Your task to perform on an android device: turn on priority inbox in the gmail app Image 0: 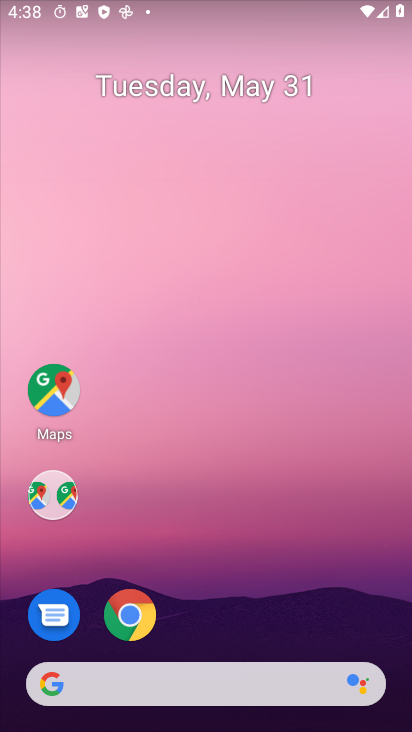
Step 0: click (204, 171)
Your task to perform on an android device: turn on priority inbox in the gmail app Image 1: 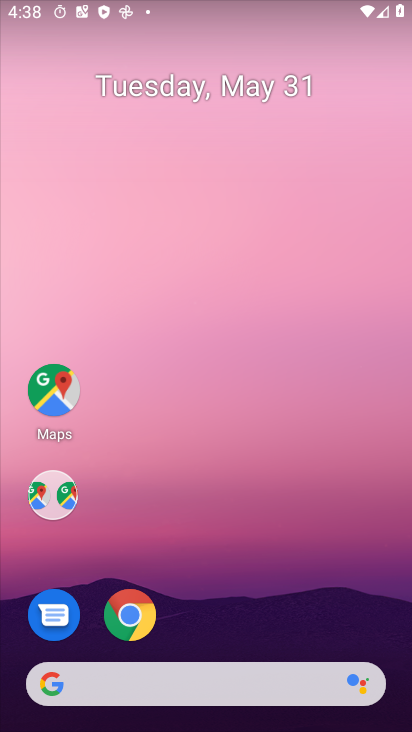
Step 1: drag from (259, 628) to (184, 74)
Your task to perform on an android device: turn on priority inbox in the gmail app Image 2: 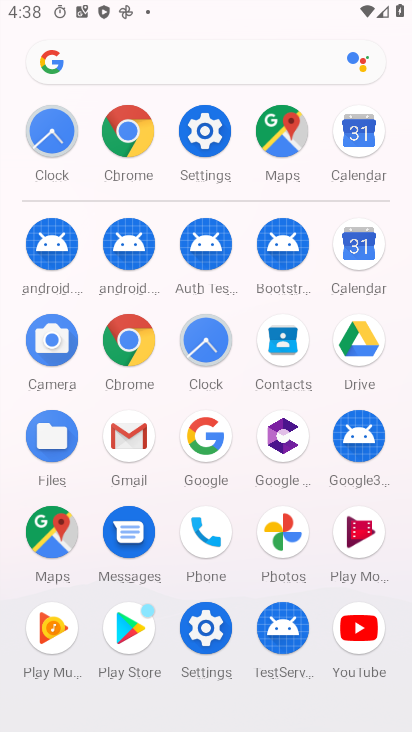
Step 2: drag from (243, 481) to (191, 9)
Your task to perform on an android device: turn on priority inbox in the gmail app Image 3: 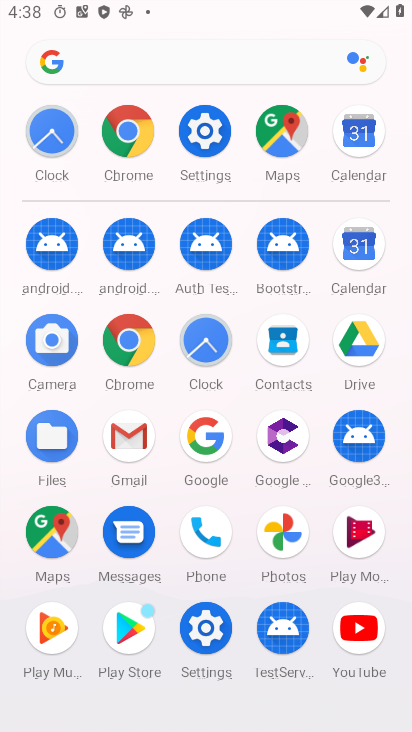
Step 3: click (129, 429)
Your task to perform on an android device: turn on priority inbox in the gmail app Image 4: 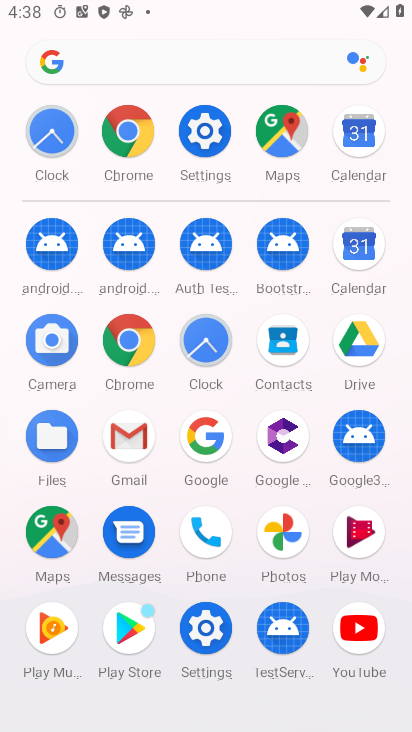
Step 4: click (129, 429)
Your task to perform on an android device: turn on priority inbox in the gmail app Image 5: 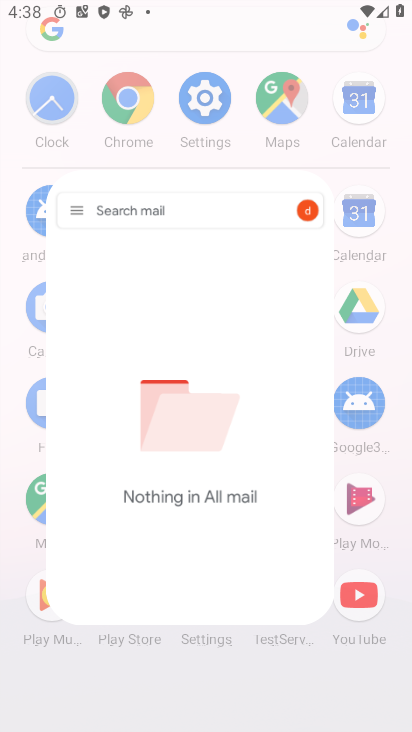
Step 5: click (129, 429)
Your task to perform on an android device: turn on priority inbox in the gmail app Image 6: 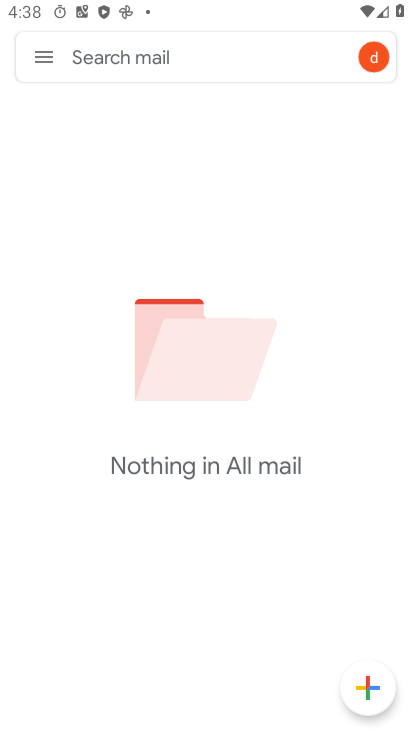
Step 6: click (130, 429)
Your task to perform on an android device: turn on priority inbox in the gmail app Image 7: 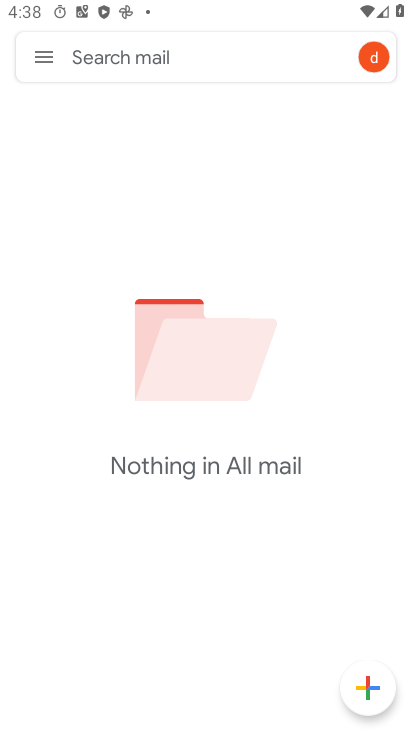
Step 7: click (131, 429)
Your task to perform on an android device: turn on priority inbox in the gmail app Image 8: 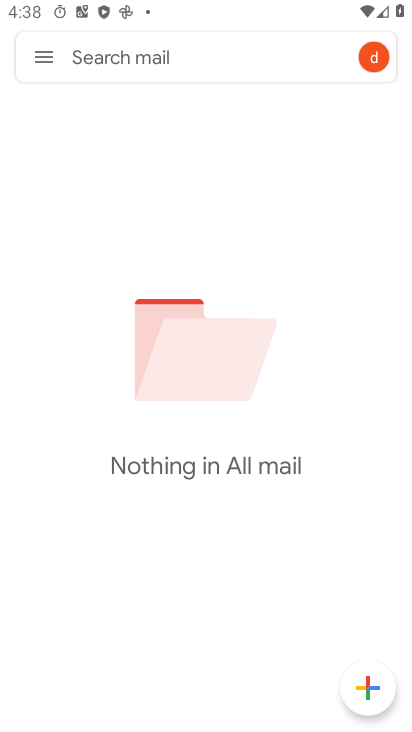
Step 8: click (129, 415)
Your task to perform on an android device: turn on priority inbox in the gmail app Image 9: 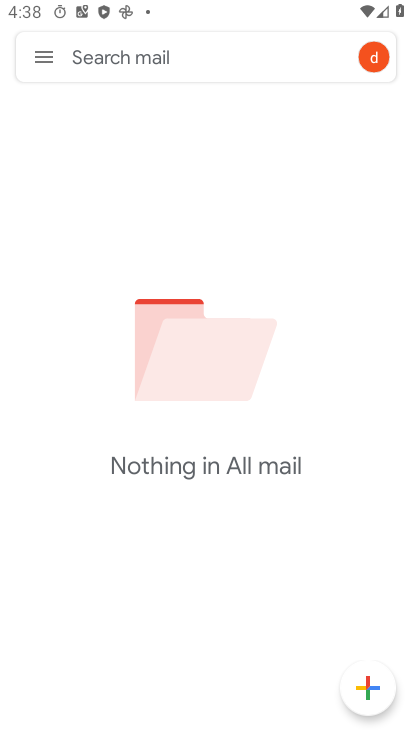
Step 9: click (38, 58)
Your task to perform on an android device: turn on priority inbox in the gmail app Image 10: 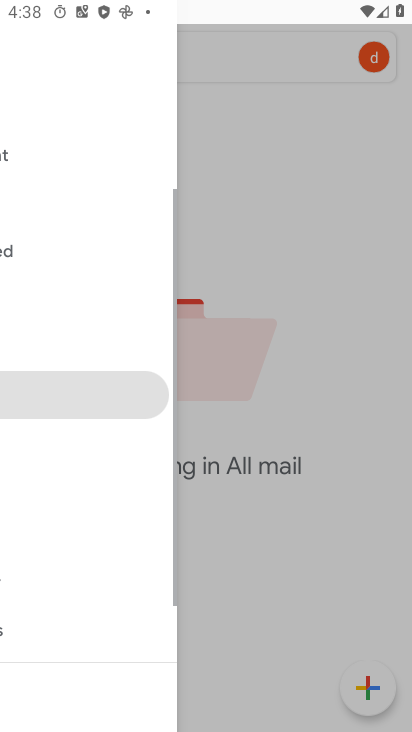
Step 10: click (43, 65)
Your task to perform on an android device: turn on priority inbox in the gmail app Image 11: 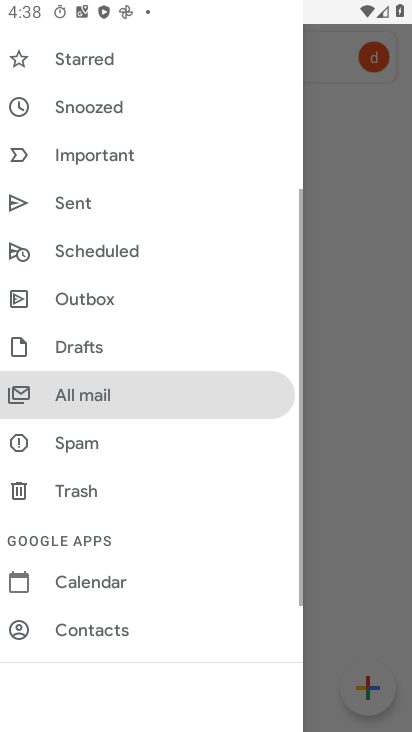
Step 11: click (43, 65)
Your task to perform on an android device: turn on priority inbox in the gmail app Image 12: 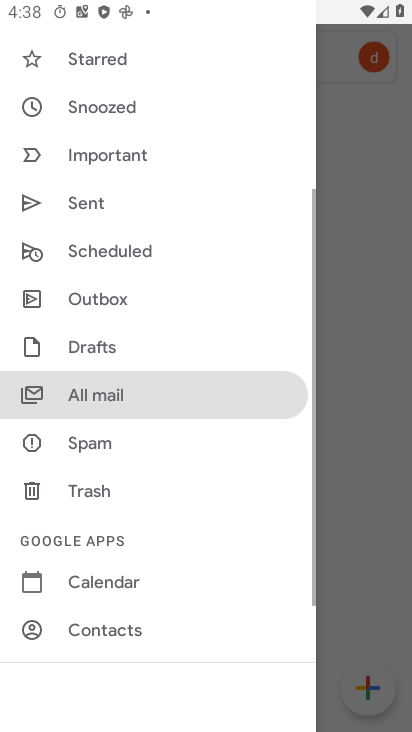
Step 12: drag from (43, 65) to (80, 636)
Your task to perform on an android device: turn on priority inbox in the gmail app Image 13: 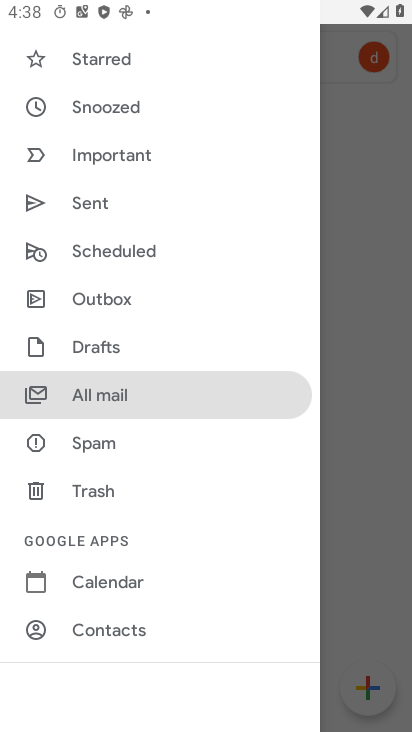
Step 13: drag from (83, 587) to (28, 194)
Your task to perform on an android device: turn on priority inbox in the gmail app Image 14: 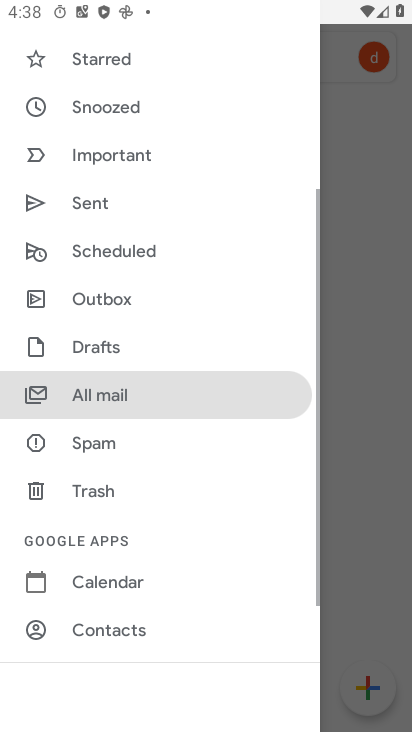
Step 14: click (150, 174)
Your task to perform on an android device: turn on priority inbox in the gmail app Image 15: 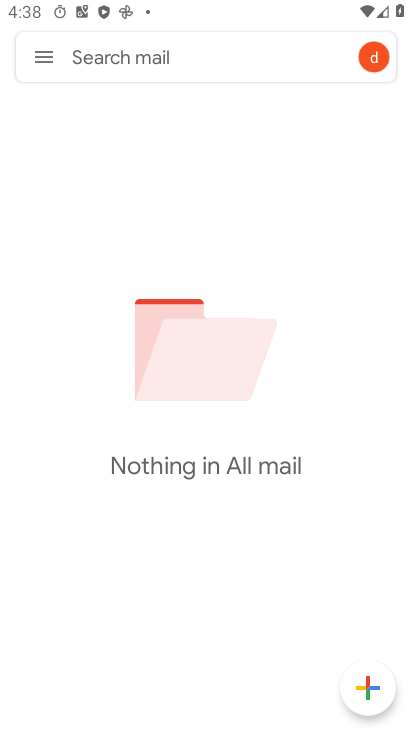
Step 15: drag from (68, 590) to (85, 153)
Your task to perform on an android device: turn on priority inbox in the gmail app Image 16: 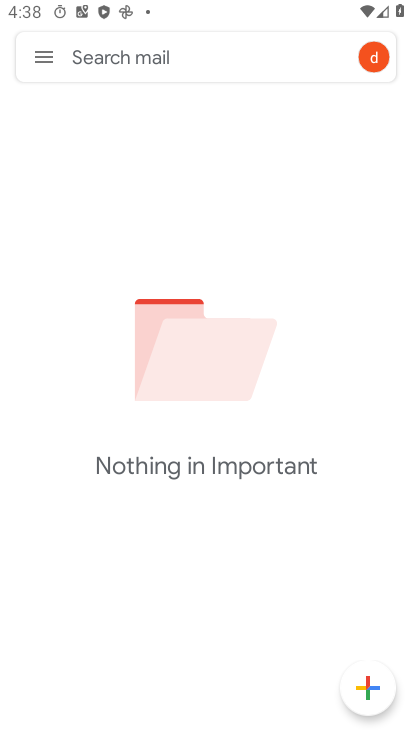
Step 16: click (49, 59)
Your task to perform on an android device: turn on priority inbox in the gmail app Image 17: 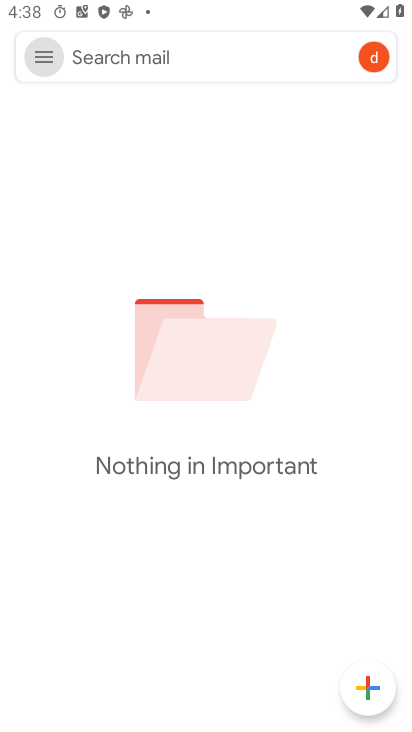
Step 17: click (50, 60)
Your task to perform on an android device: turn on priority inbox in the gmail app Image 18: 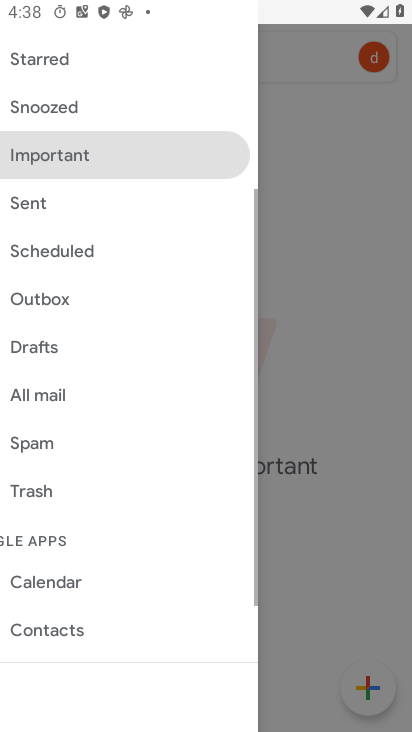
Step 18: click (50, 60)
Your task to perform on an android device: turn on priority inbox in the gmail app Image 19: 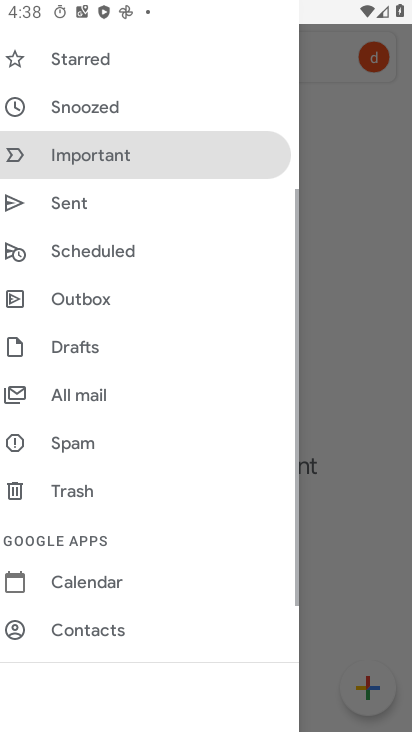
Step 19: click (50, 60)
Your task to perform on an android device: turn on priority inbox in the gmail app Image 20: 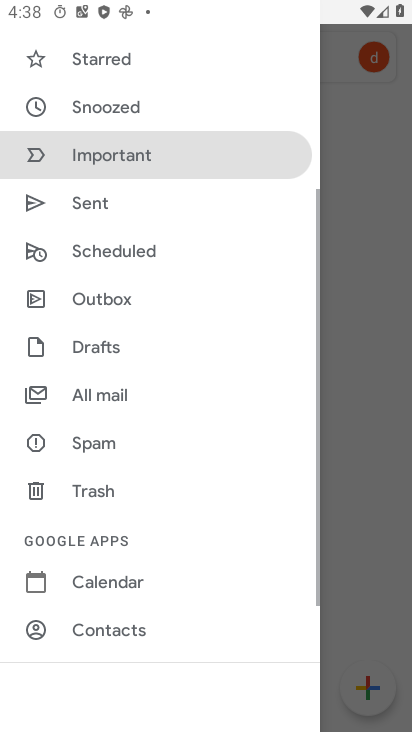
Step 20: drag from (89, 559) to (89, 73)
Your task to perform on an android device: turn on priority inbox in the gmail app Image 21: 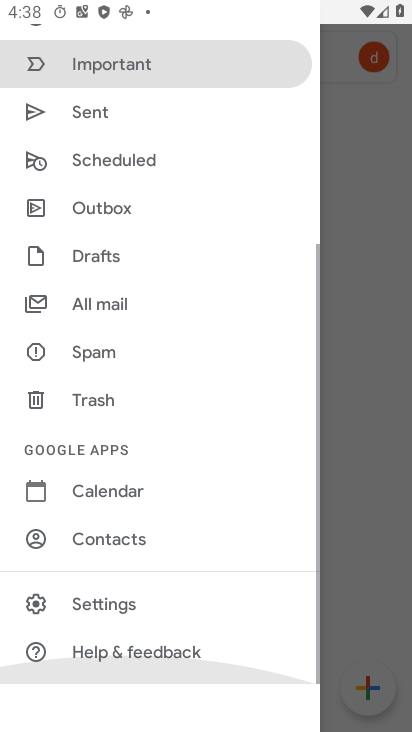
Step 21: drag from (121, 494) to (127, 109)
Your task to perform on an android device: turn on priority inbox in the gmail app Image 22: 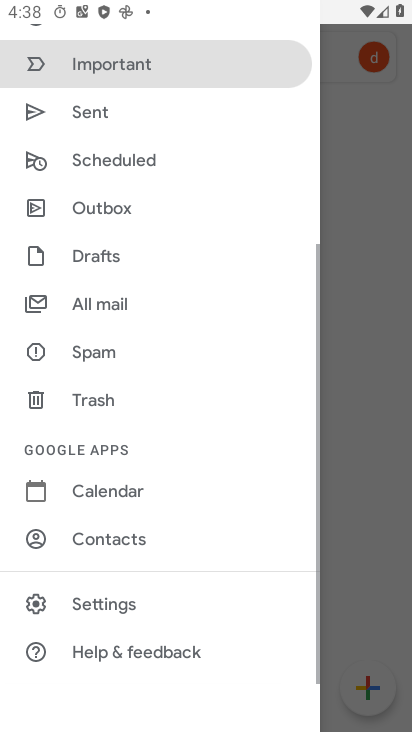
Step 22: click (109, 598)
Your task to perform on an android device: turn on priority inbox in the gmail app Image 23: 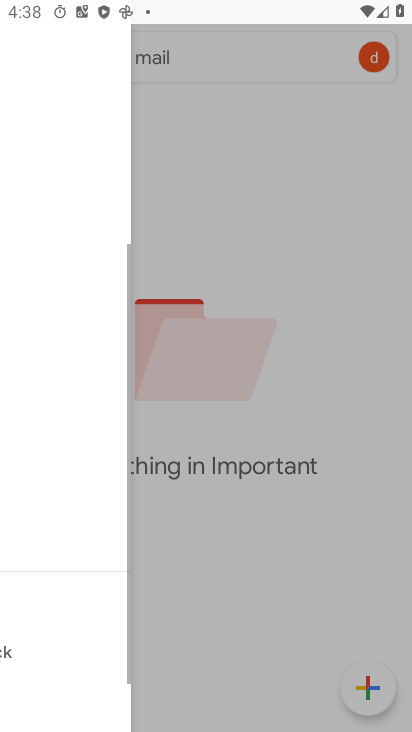
Step 23: click (109, 598)
Your task to perform on an android device: turn on priority inbox in the gmail app Image 24: 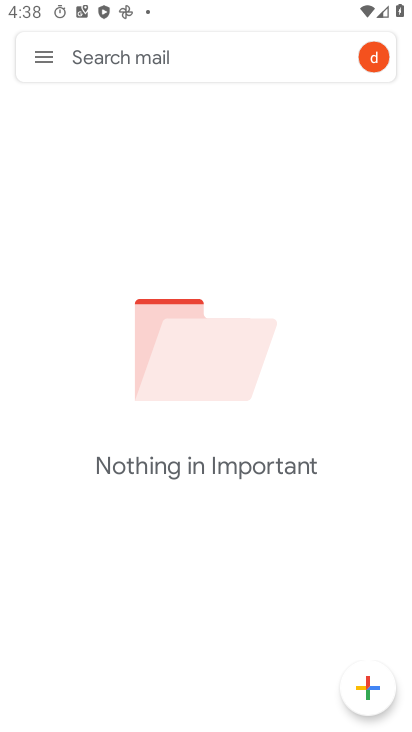
Step 24: click (109, 598)
Your task to perform on an android device: turn on priority inbox in the gmail app Image 25: 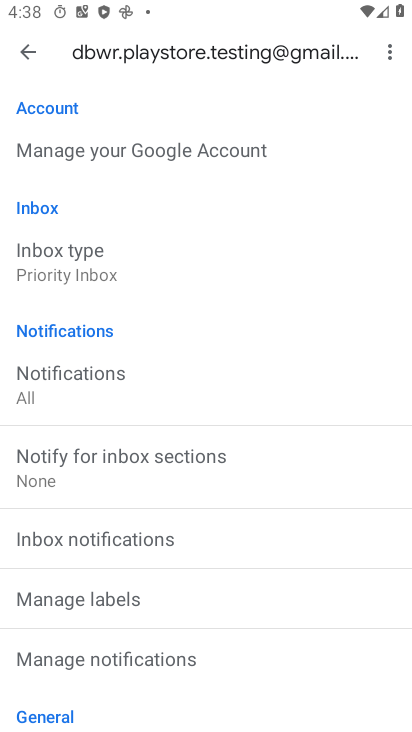
Step 25: click (54, 132)
Your task to perform on an android device: turn on priority inbox in the gmail app Image 26: 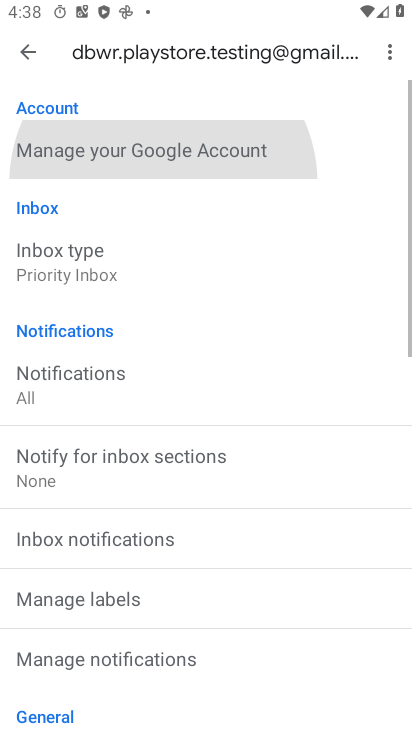
Step 26: task complete